Your task to perform on an android device: Go to sound settings Image 0: 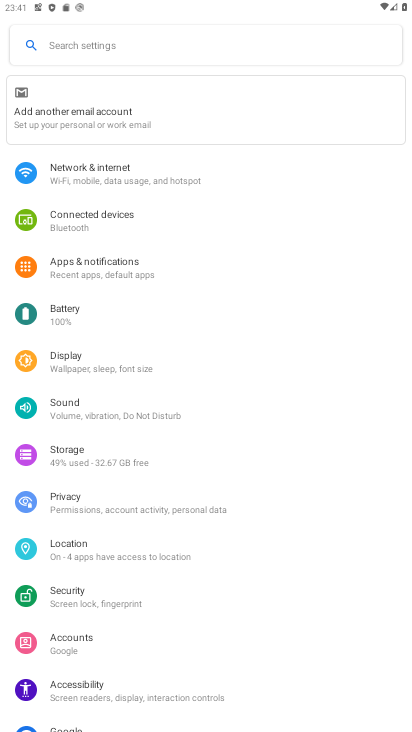
Step 0: click (60, 406)
Your task to perform on an android device: Go to sound settings Image 1: 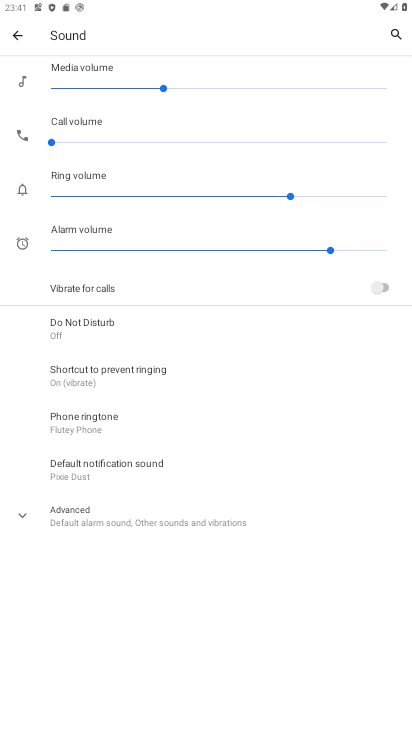
Step 1: task complete